Your task to perform on an android device: open sync settings in chrome Image 0: 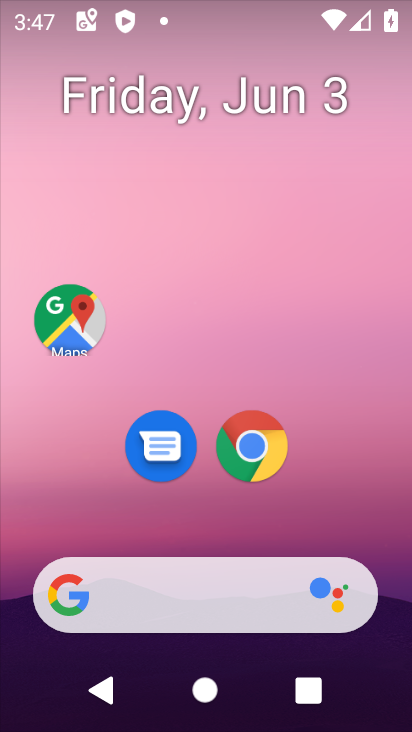
Step 0: task complete